Your task to perform on an android device: see tabs open on other devices in the chrome app Image 0: 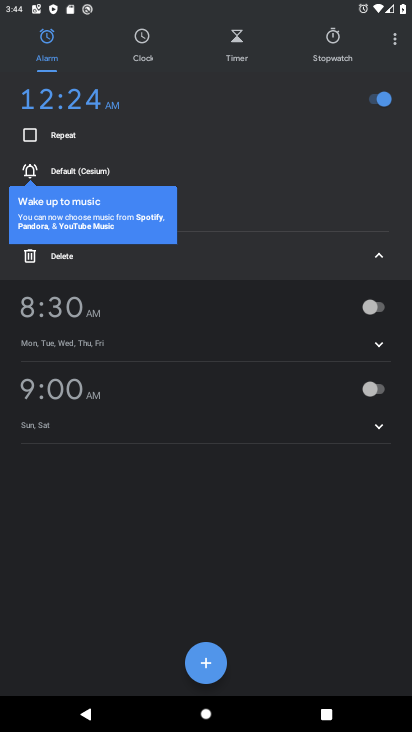
Step 0: press home button
Your task to perform on an android device: see tabs open on other devices in the chrome app Image 1: 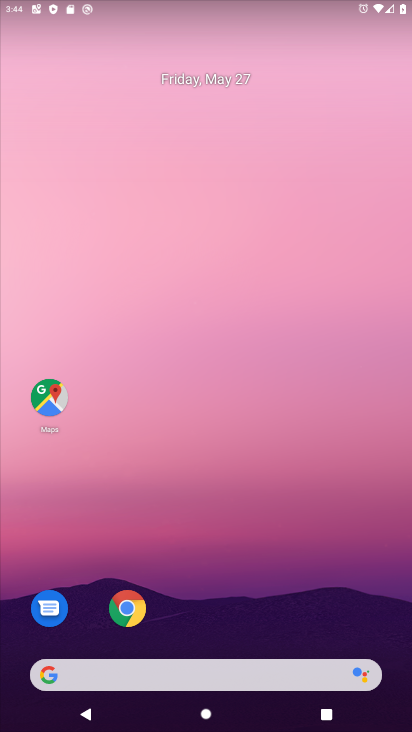
Step 1: click (128, 614)
Your task to perform on an android device: see tabs open on other devices in the chrome app Image 2: 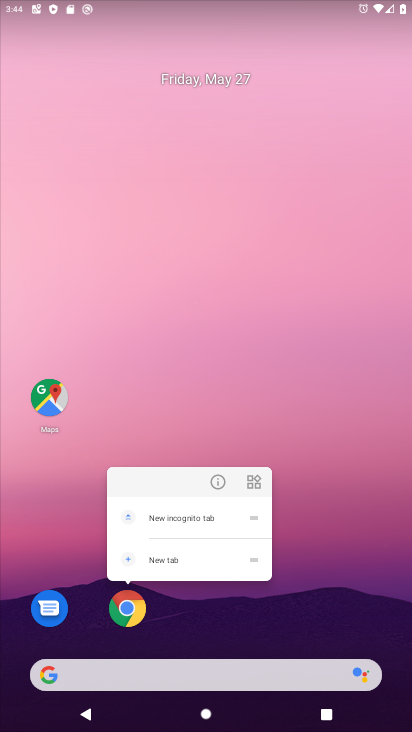
Step 2: click (128, 614)
Your task to perform on an android device: see tabs open on other devices in the chrome app Image 3: 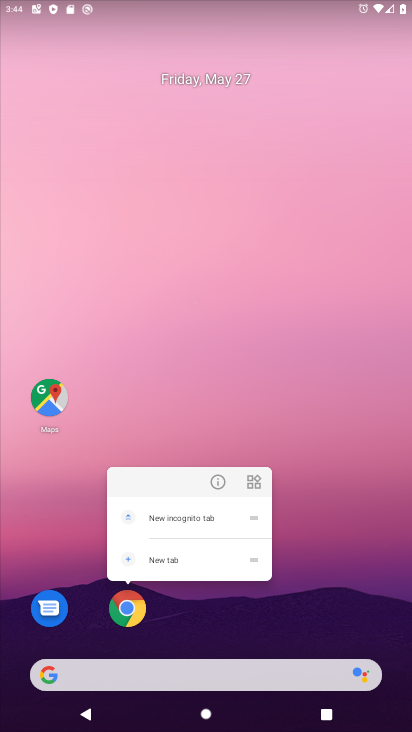
Step 3: click (124, 602)
Your task to perform on an android device: see tabs open on other devices in the chrome app Image 4: 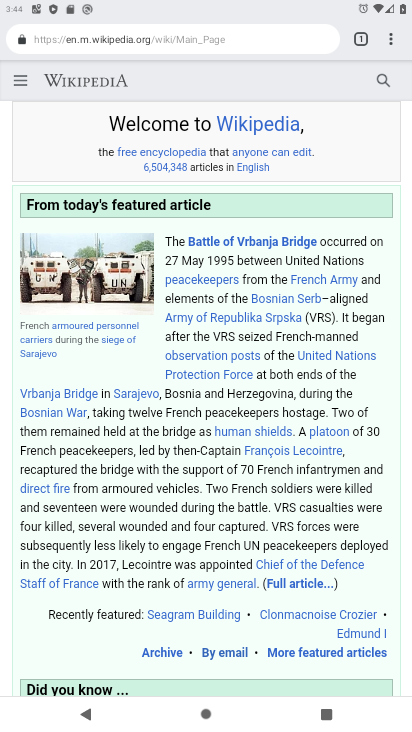
Step 4: click (361, 40)
Your task to perform on an android device: see tabs open on other devices in the chrome app Image 5: 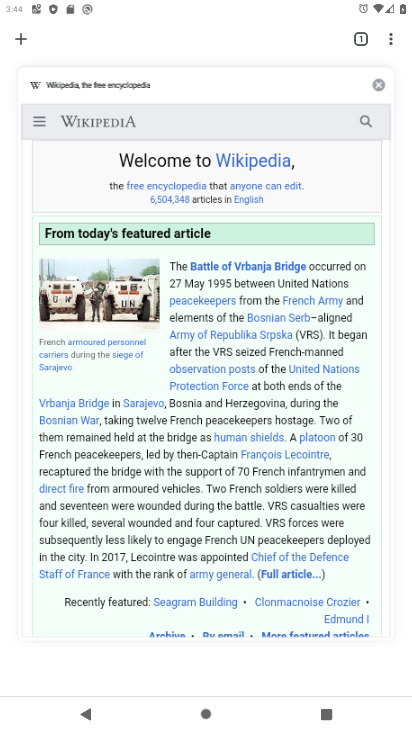
Step 5: task complete